Your task to perform on an android device: turn on bluetooth scan Image 0: 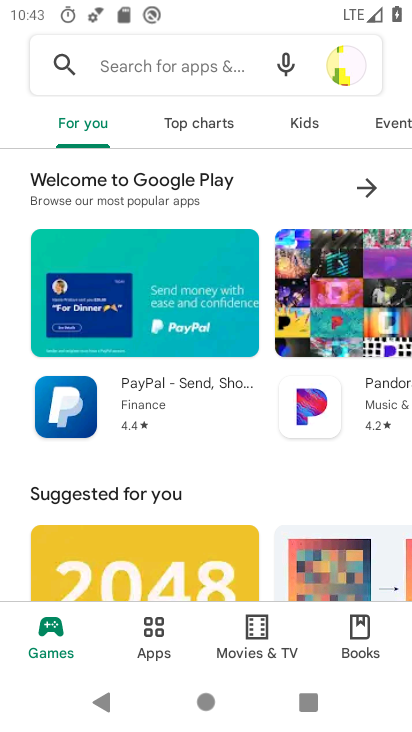
Step 0: press home button
Your task to perform on an android device: turn on bluetooth scan Image 1: 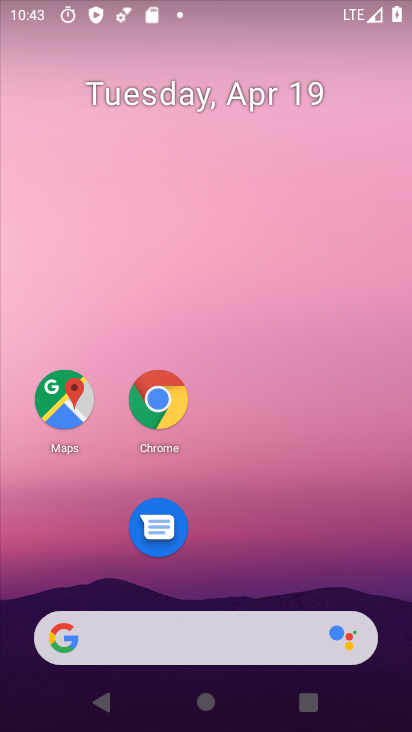
Step 1: drag from (278, 674) to (336, 110)
Your task to perform on an android device: turn on bluetooth scan Image 2: 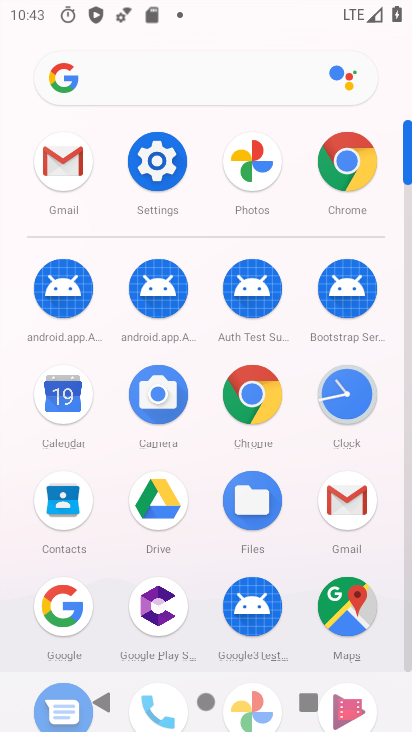
Step 2: click (160, 173)
Your task to perform on an android device: turn on bluetooth scan Image 3: 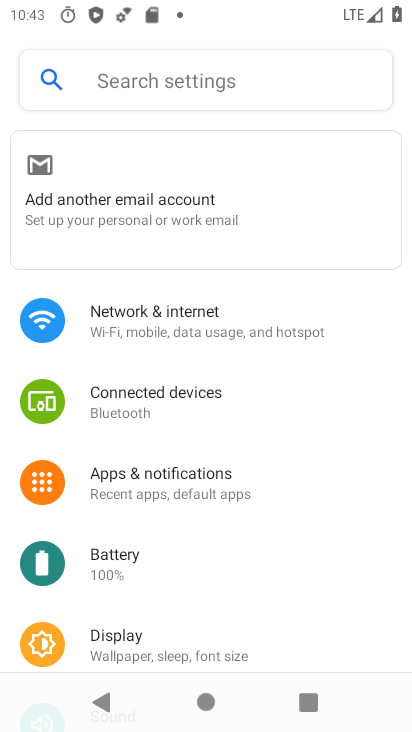
Step 3: click (130, 88)
Your task to perform on an android device: turn on bluetooth scan Image 4: 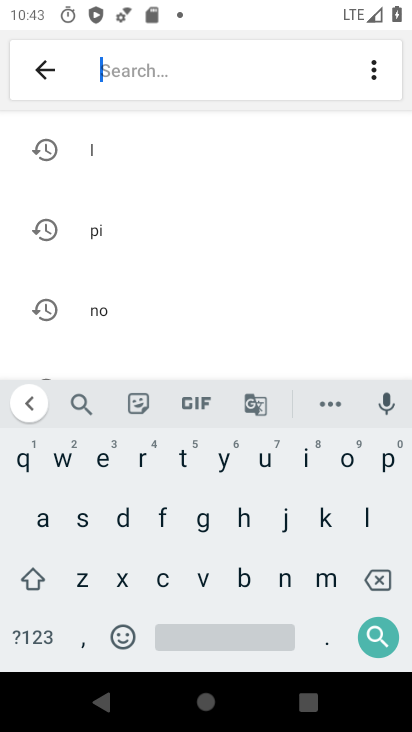
Step 4: click (132, 164)
Your task to perform on an android device: turn on bluetooth scan Image 5: 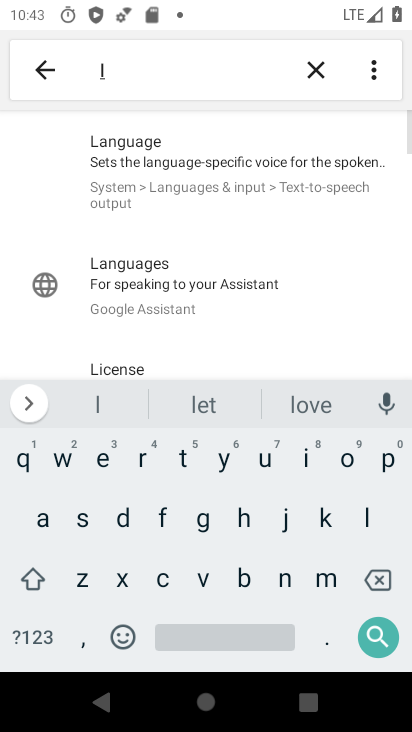
Step 5: drag from (185, 301) to (241, 176)
Your task to perform on an android device: turn on bluetooth scan Image 6: 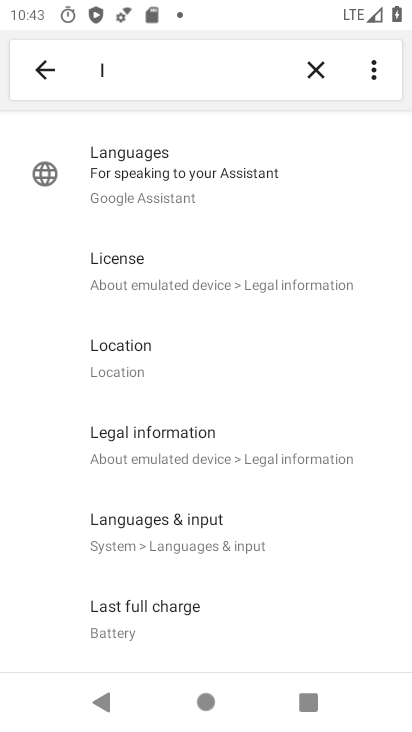
Step 6: click (198, 364)
Your task to perform on an android device: turn on bluetooth scan Image 7: 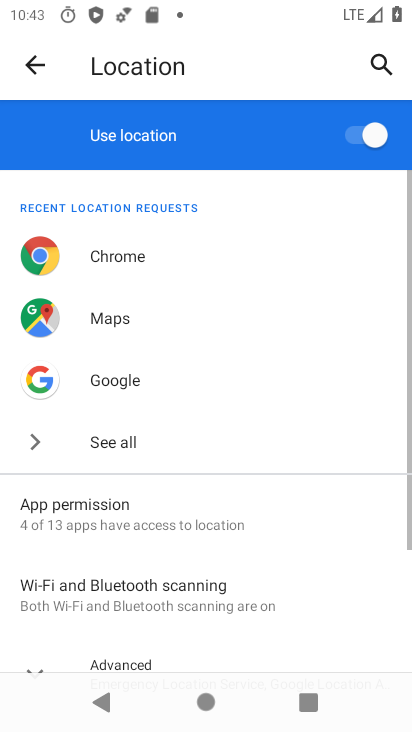
Step 7: drag from (197, 559) to (264, 264)
Your task to perform on an android device: turn on bluetooth scan Image 8: 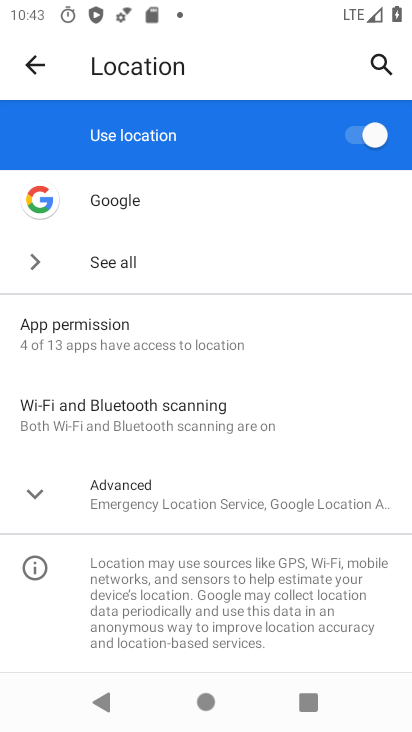
Step 8: click (89, 505)
Your task to perform on an android device: turn on bluetooth scan Image 9: 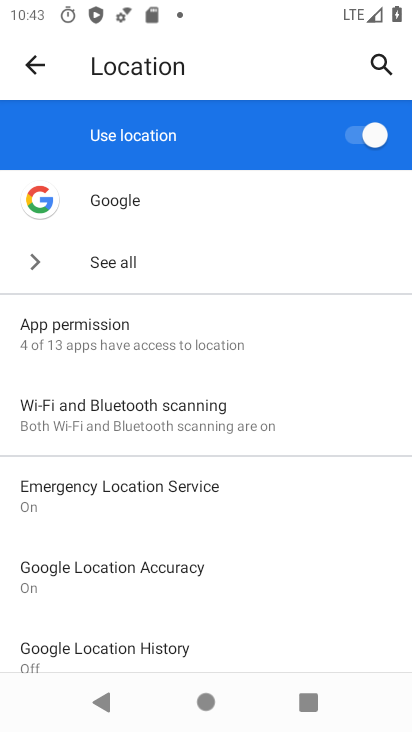
Step 9: click (178, 414)
Your task to perform on an android device: turn on bluetooth scan Image 10: 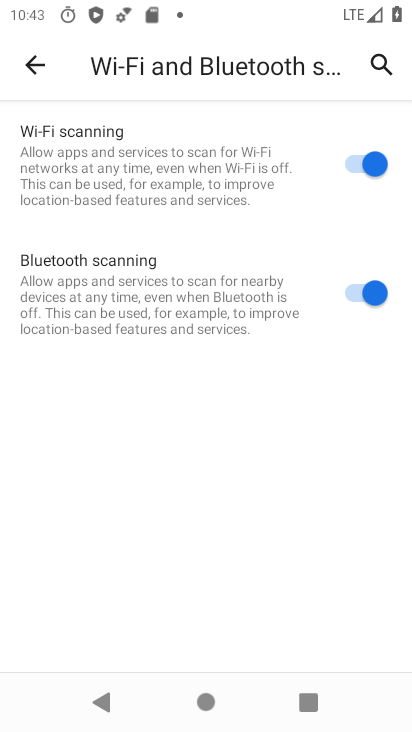
Step 10: click (204, 299)
Your task to perform on an android device: turn on bluetooth scan Image 11: 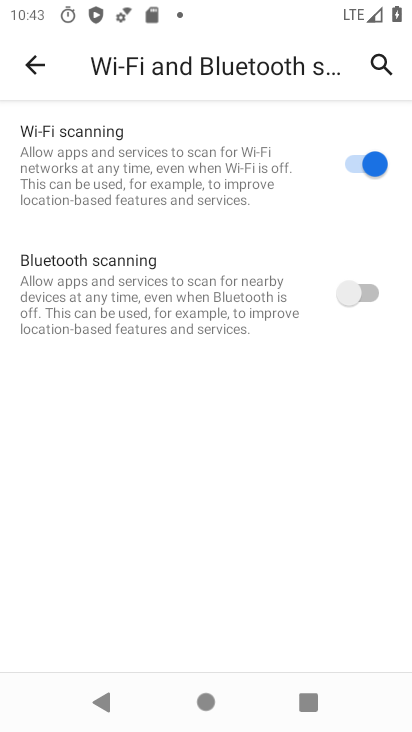
Step 11: click (204, 299)
Your task to perform on an android device: turn on bluetooth scan Image 12: 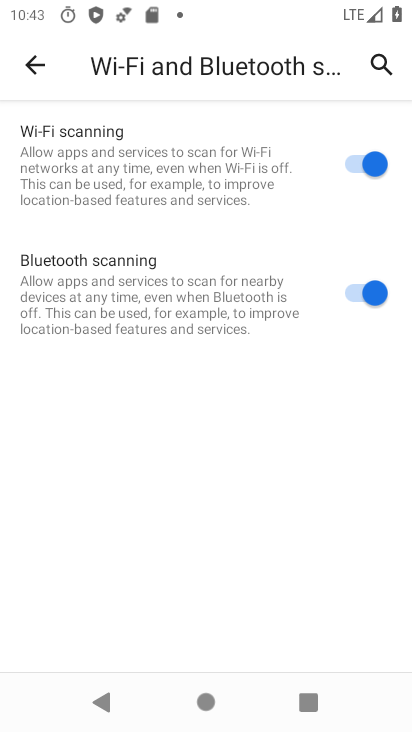
Step 12: task complete